Your task to perform on an android device: open app "Google Duo" (install if not already installed) Image 0: 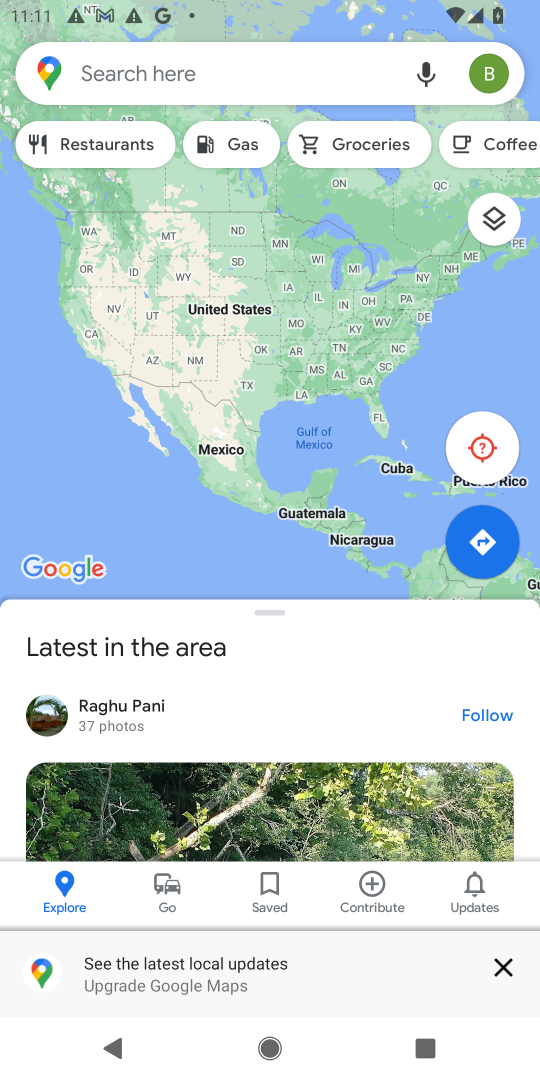
Step 0: press home button
Your task to perform on an android device: open app "Google Duo" (install if not already installed) Image 1: 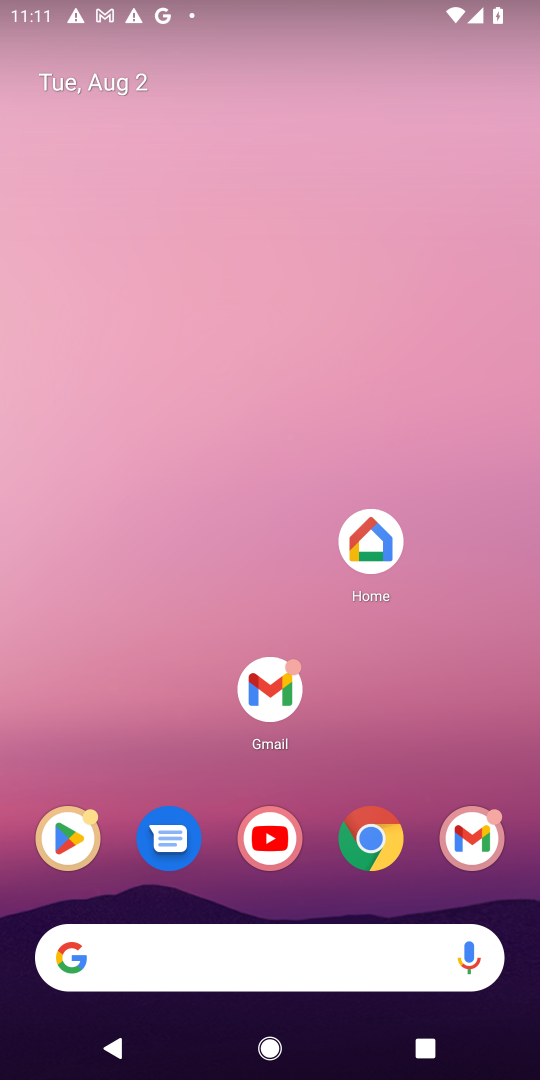
Step 1: drag from (374, 677) to (403, 191)
Your task to perform on an android device: open app "Google Duo" (install if not already installed) Image 2: 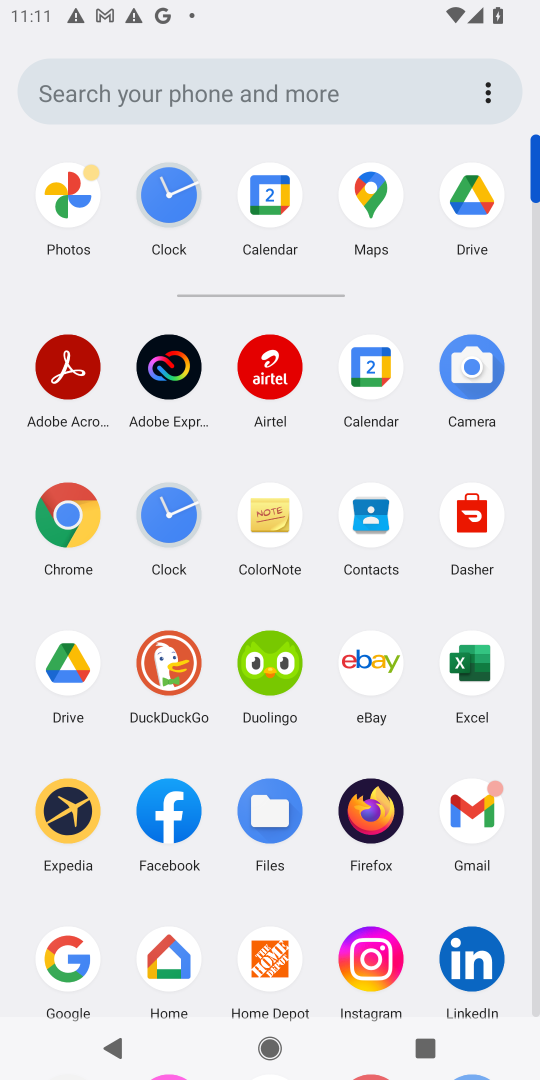
Step 2: drag from (303, 888) to (328, 640)
Your task to perform on an android device: open app "Google Duo" (install if not already installed) Image 3: 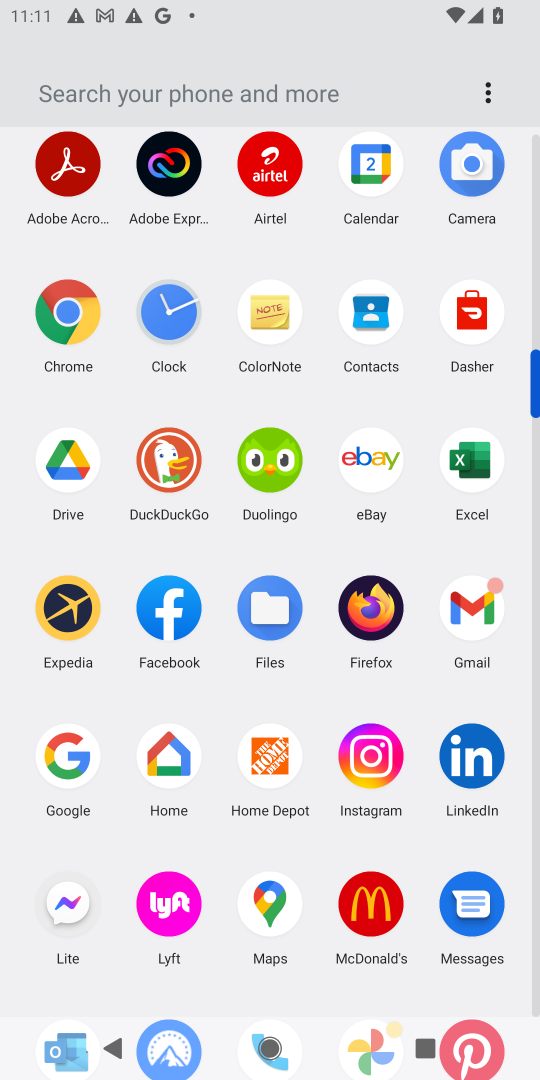
Step 3: drag from (309, 941) to (332, 728)
Your task to perform on an android device: open app "Google Duo" (install if not already installed) Image 4: 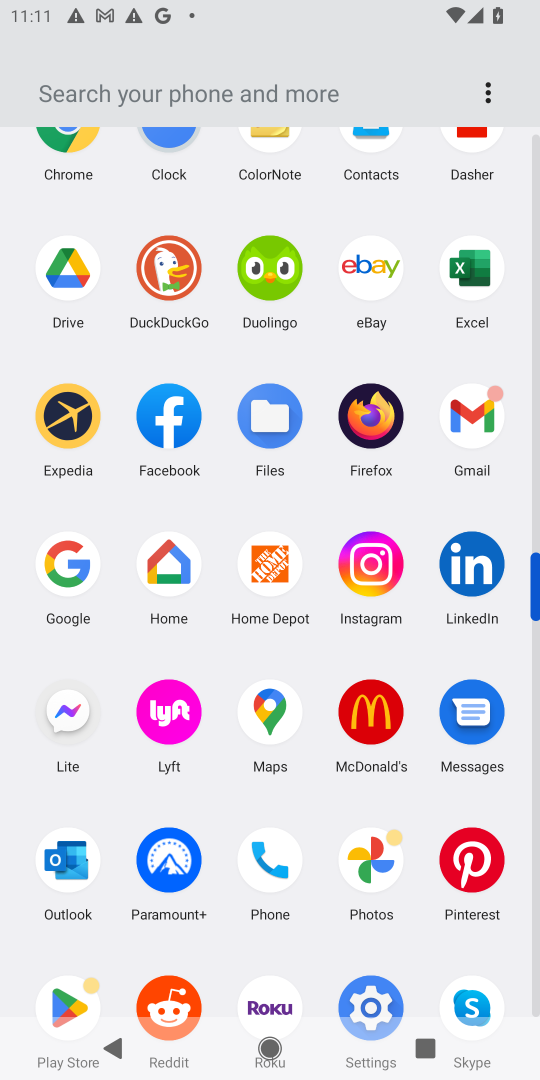
Step 4: drag from (302, 960) to (320, 679)
Your task to perform on an android device: open app "Google Duo" (install if not already installed) Image 5: 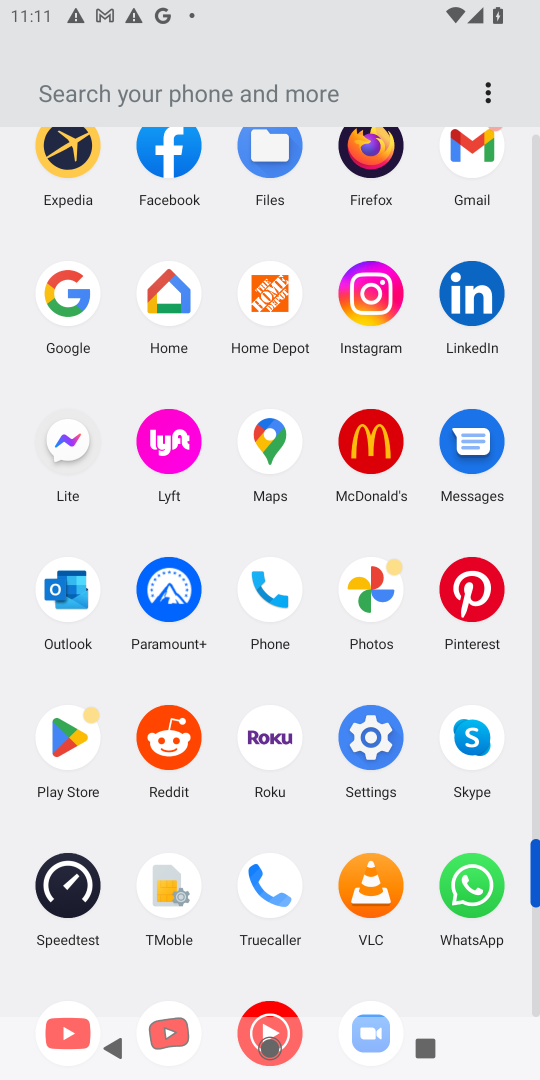
Step 5: click (71, 738)
Your task to perform on an android device: open app "Google Duo" (install if not already installed) Image 6: 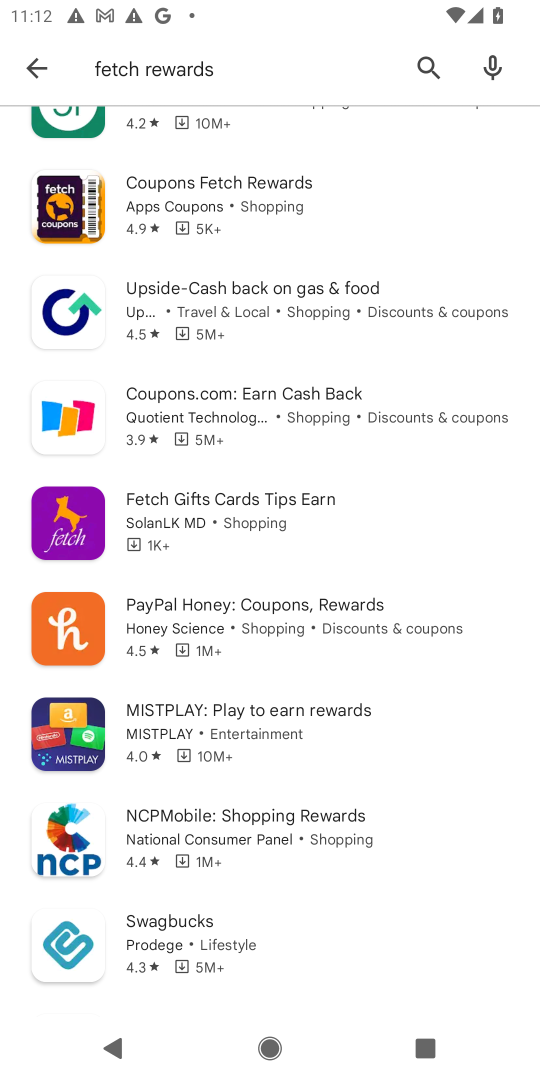
Step 6: click (422, 60)
Your task to perform on an android device: open app "Google Duo" (install if not already installed) Image 7: 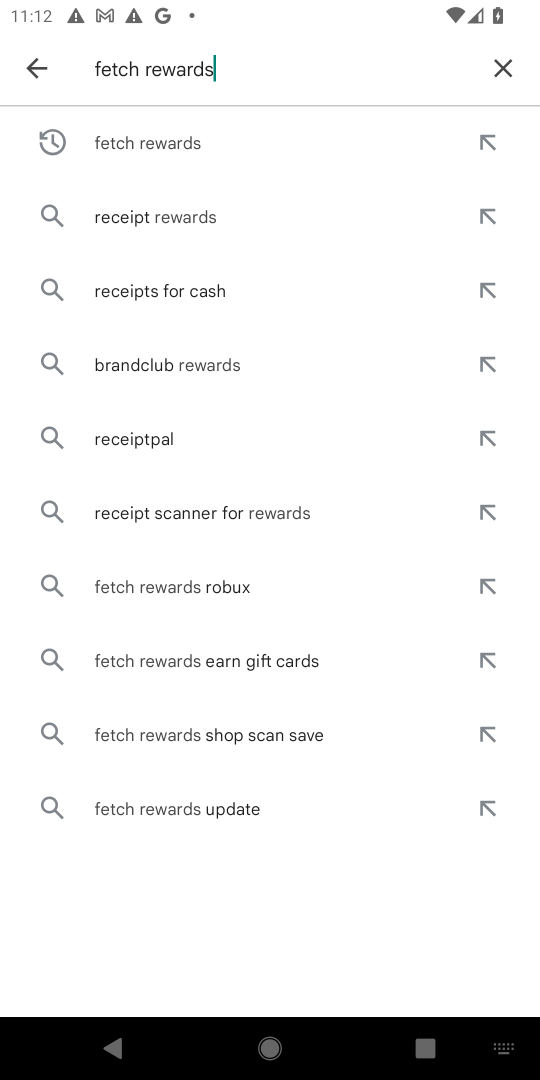
Step 7: click (509, 69)
Your task to perform on an android device: open app "Google Duo" (install if not already installed) Image 8: 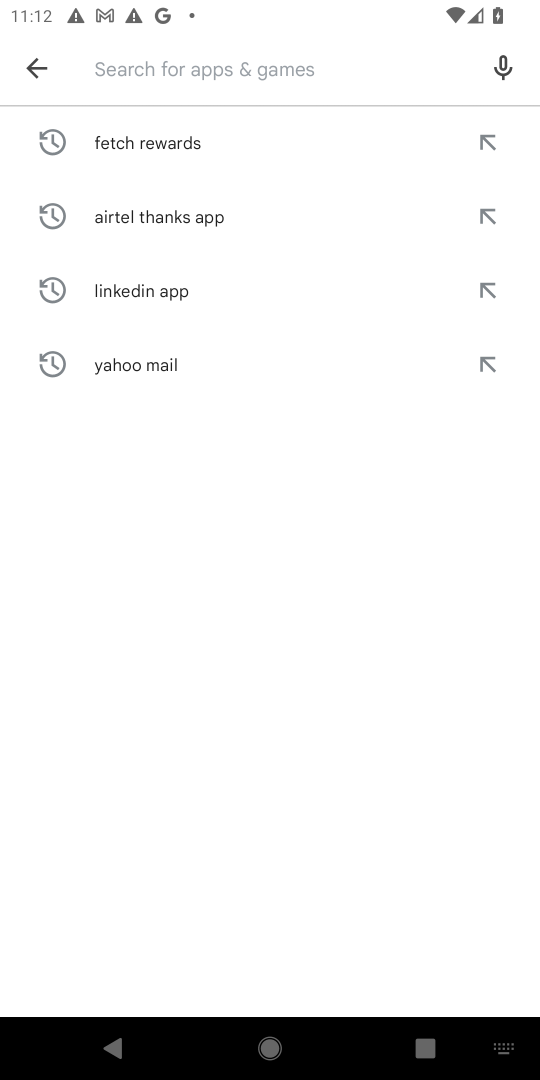
Step 8: type "google duo"
Your task to perform on an android device: open app "Google Duo" (install if not already installed) Image 9: 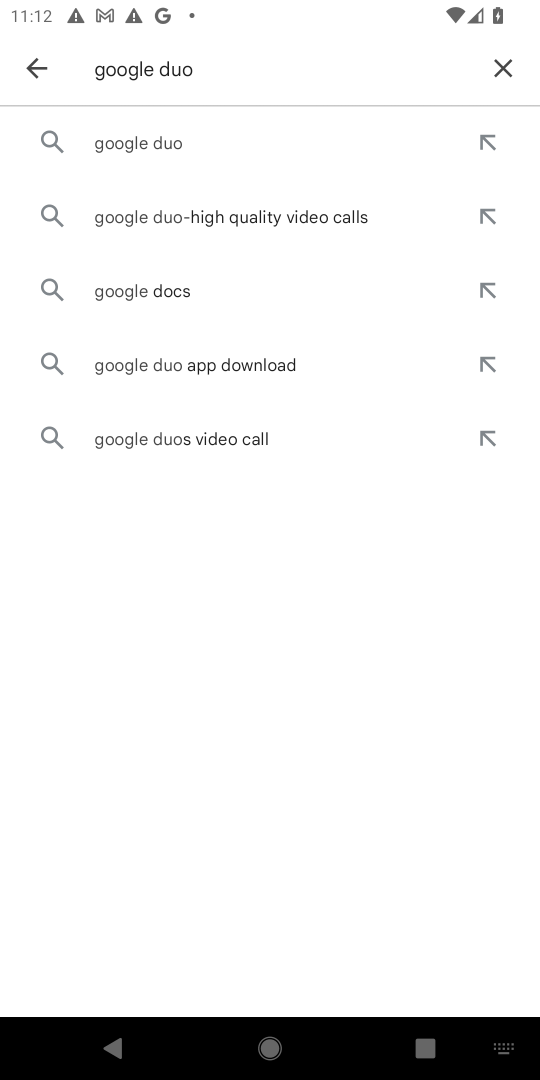
Step 9: click (289, 161)
Your task to perform on an android device: open app "Google Duo" (install if not already installed) Image 10: 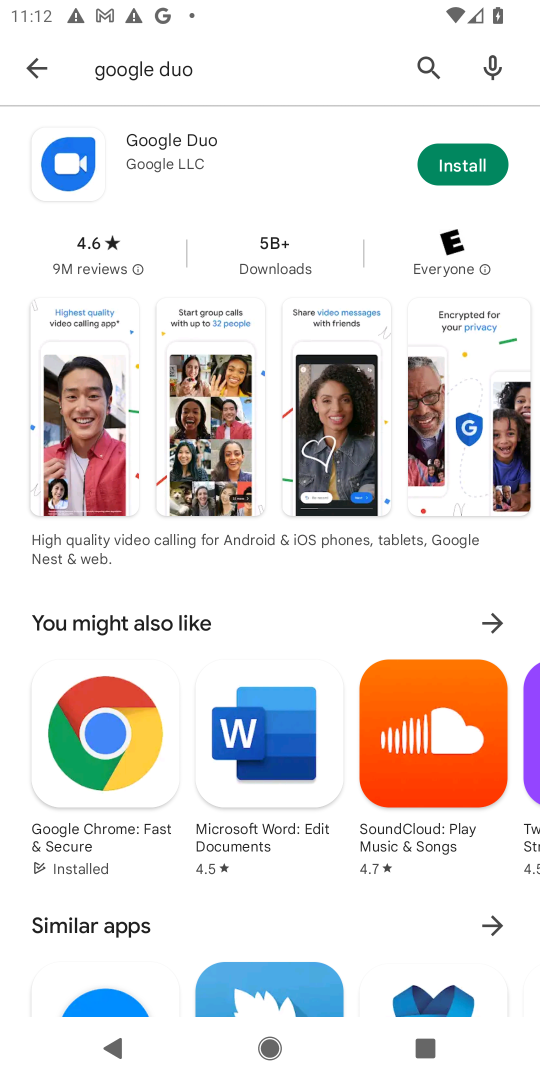
Step 10: click (443, 179)
Your task to perform on an android device: open app "Google Duo" (install if not already installed) Image 11: 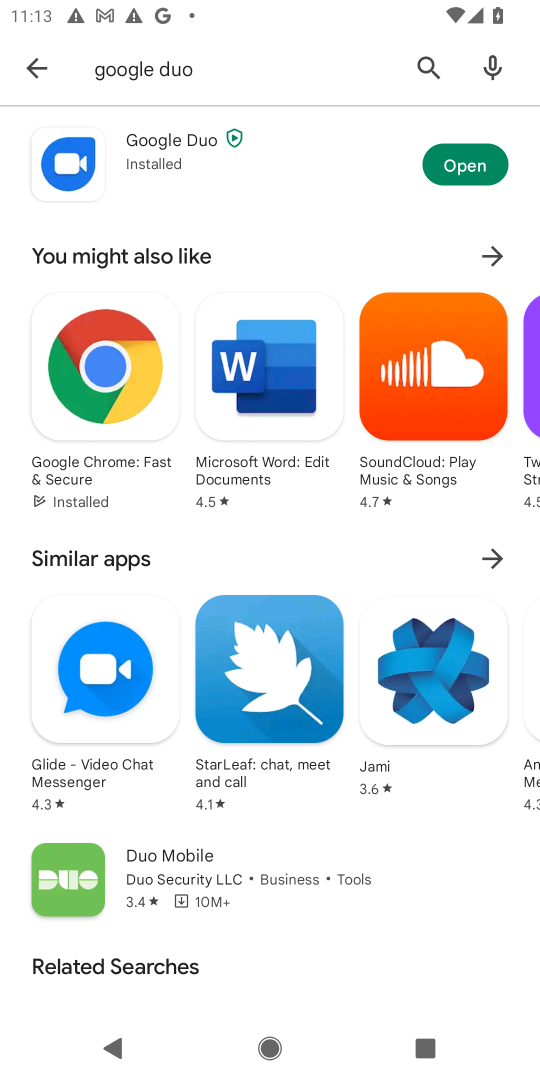
Step 11: click (467, 165)
Your task to perform on an android device: open app "Google Duo" (install if not already installed) Image 12: 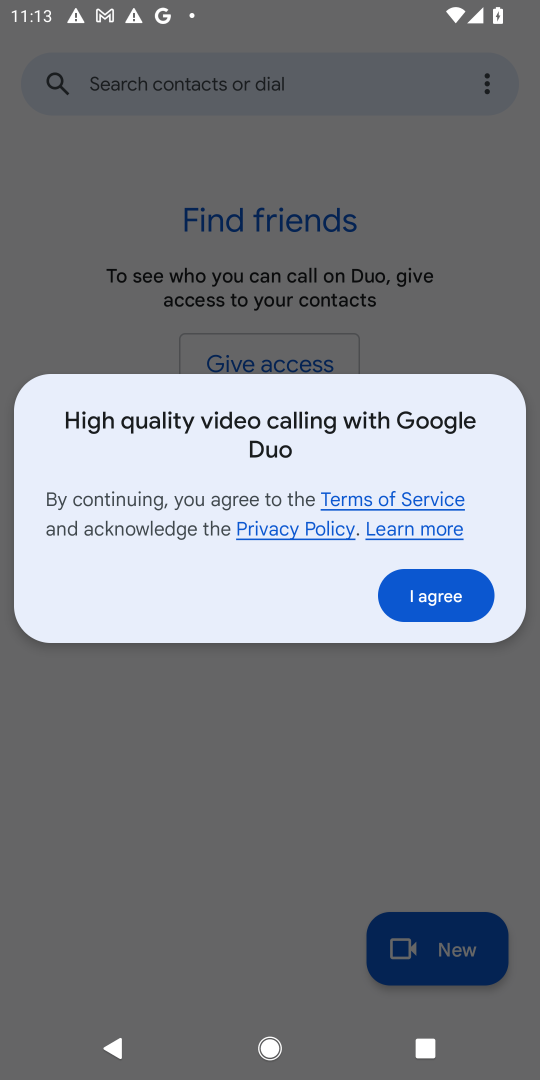
Step 12: task complete